Your task to perform on an android device: Go to location settings Image 0: 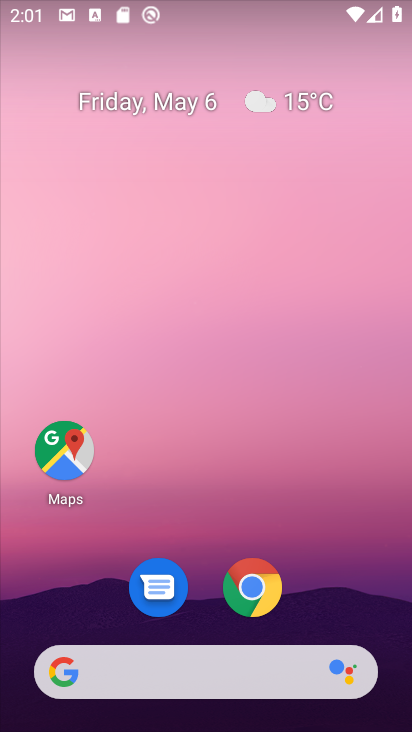
Step 0: click (219, 67)
Your task to perform on an android device: Go to location settings Image 1: 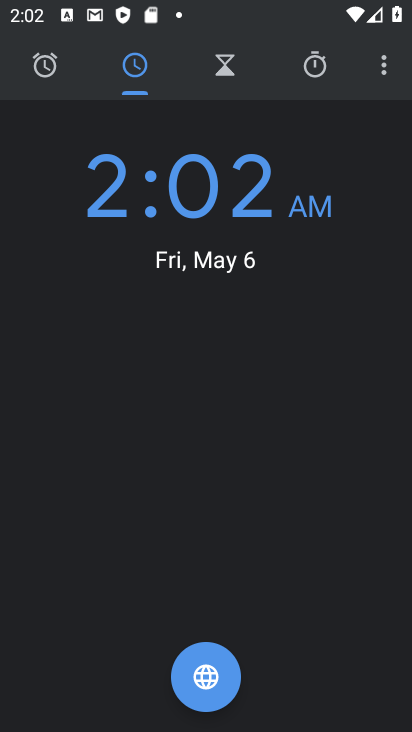
Step 1: press home button
Your task to perform on an android device: Go to location settings Image 2: 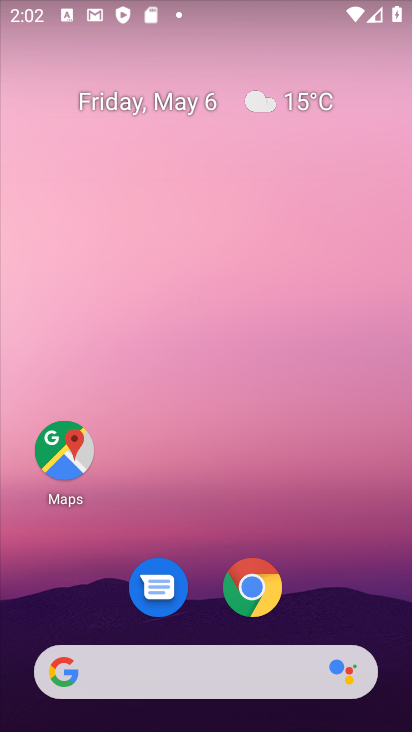
Step 2: drag from (334, 573) to (365, 2)
Your task to perform on an android device: Go to location settings Image 3: 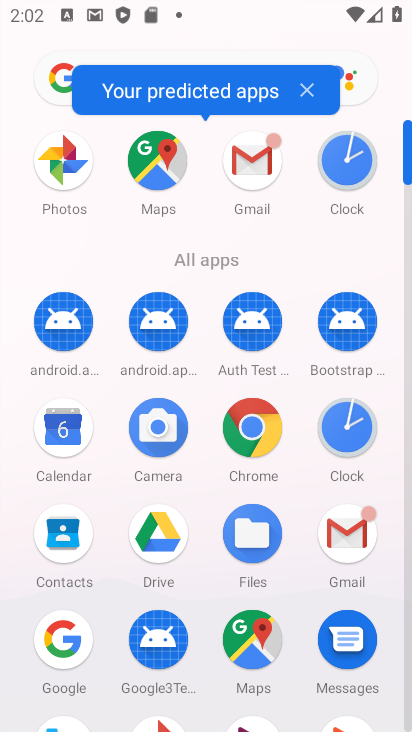
Step 3: drag from (389, 581) to (406, 209)
Your task to perform on an android device: Go to location settings Image 4: 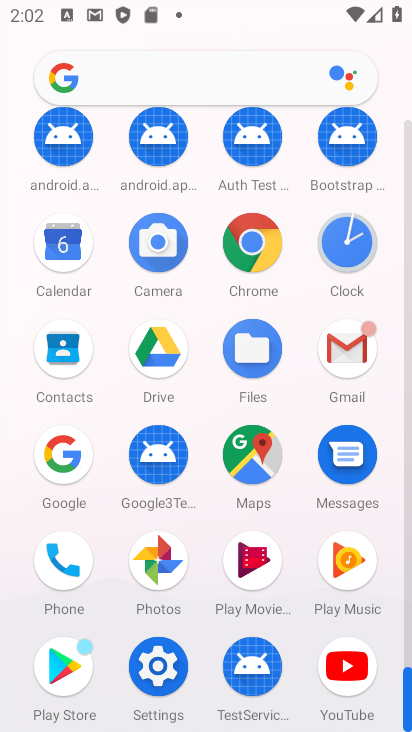
Step 4: drag from (388, 579) to (409, 224)
Your task to perform on an android device: Go to location settings Image 5: 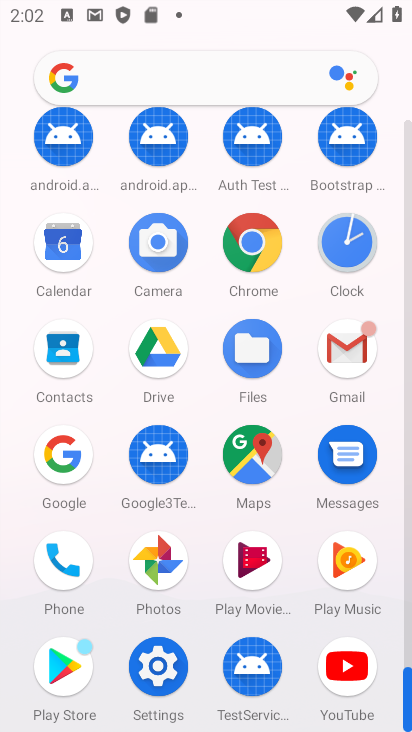
Step 5: click (167, 658)
Your task to perform on an android device: Go to location settings Image 6: 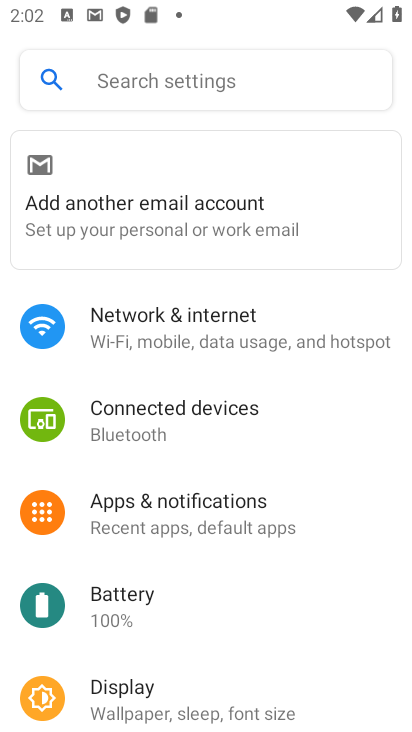
Step 6: drag from (248, 569) to (311, 199)
Your task to perform on an android device: Go to location settings Image 7: 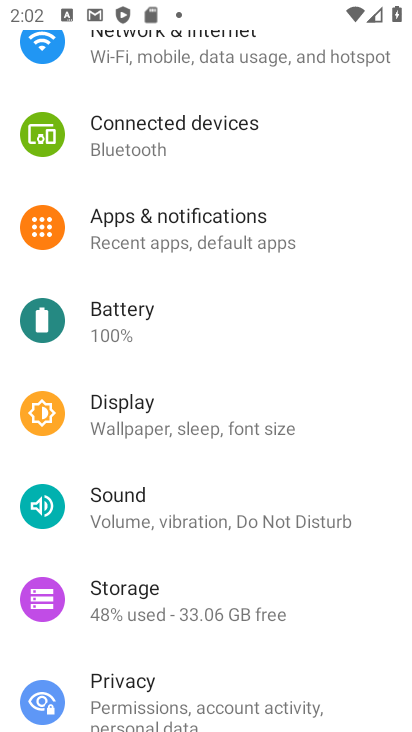
Step 7: drag from (205, 561) to (247, 176)
Your task to perform on an android device: Go to location settings Image 8: 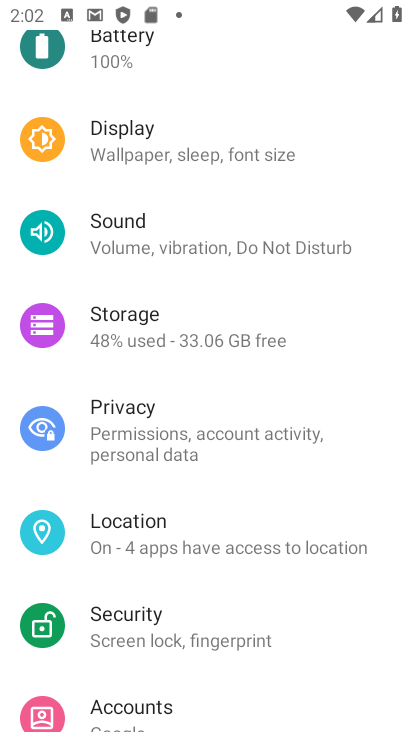
Step 8: click (139, 525)
Your task to perform on an android device: Go to location settings Image 9: 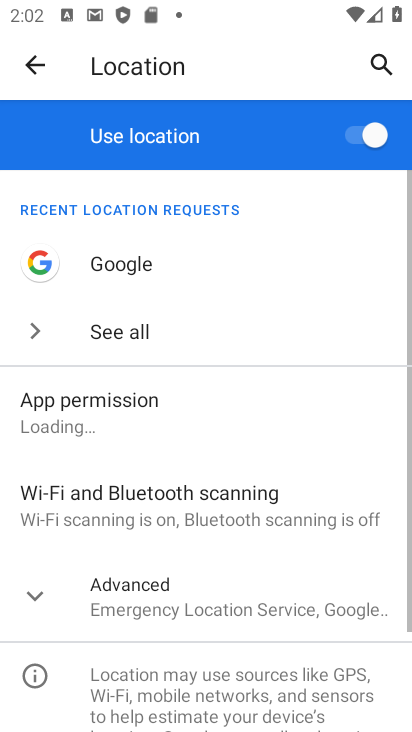
Step 9: task complete